Your task to perform on an android device: What's the weather today? Image 0: 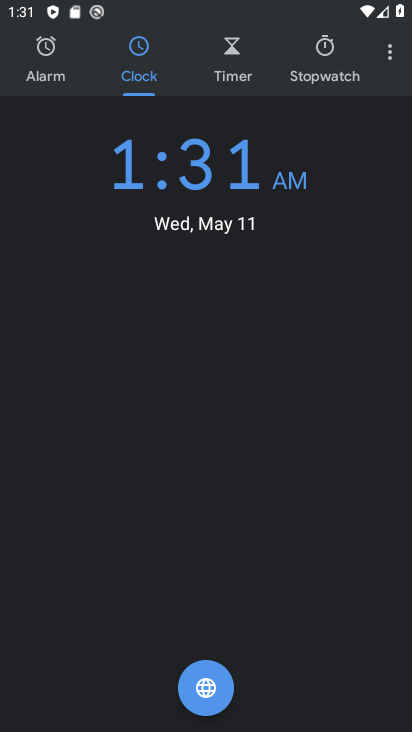
Step 0: press home button
Your task to perform on an android device: What's the weather today? Image 1: 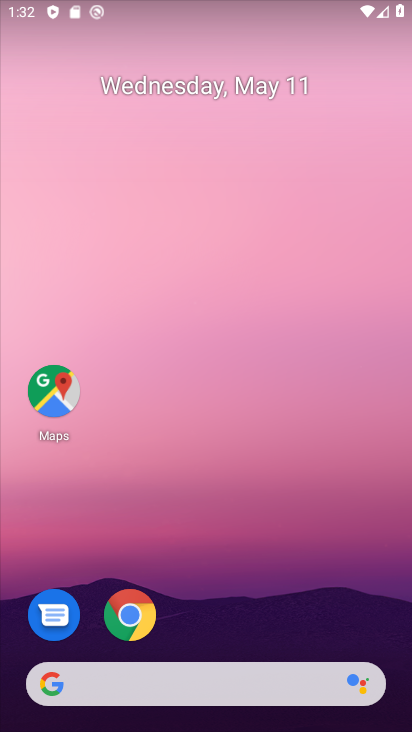
Step 1: drag from (51, 245) to (391, 243)
Your task to perform on an android device: What's the weather today? Image 2: 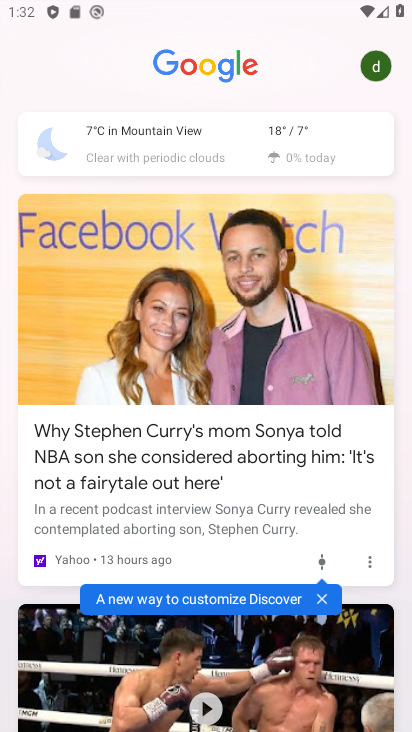
Step 2: click (43, 137)
Your task to perform on an android device: What's the weather today? Image 3: 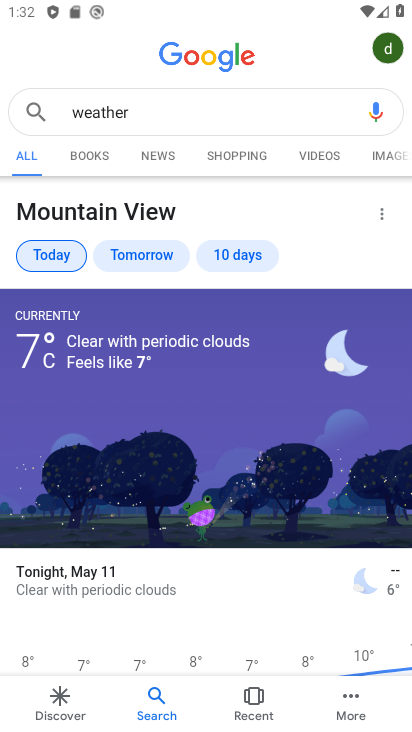
Step 3: task complete